Your task to perform on an android device: change alarm snooze length Image 0: 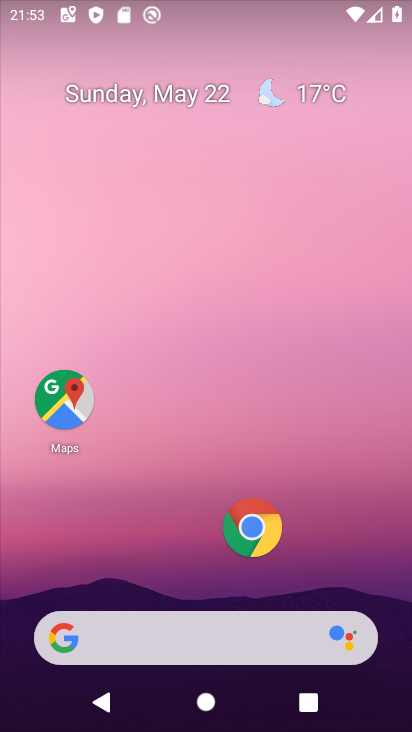
Step 0: drag from (350, 537) to (157, 46)
Your task to perform on an android device: change alarm snooze length Image 1: 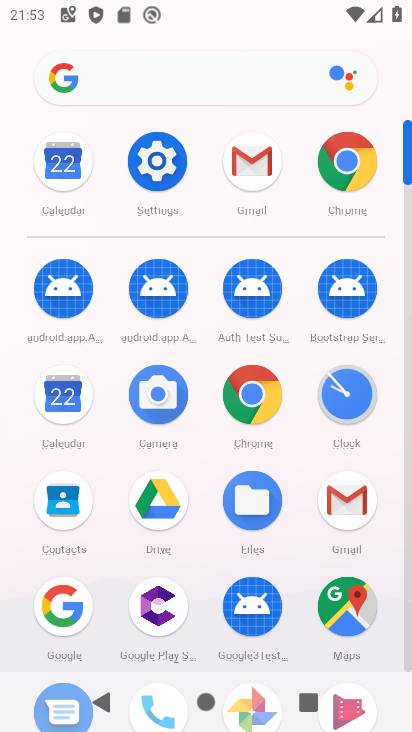
Step 1: click (347, 386)
Your task to perform on an android device: change alarm snooze length Image 2: 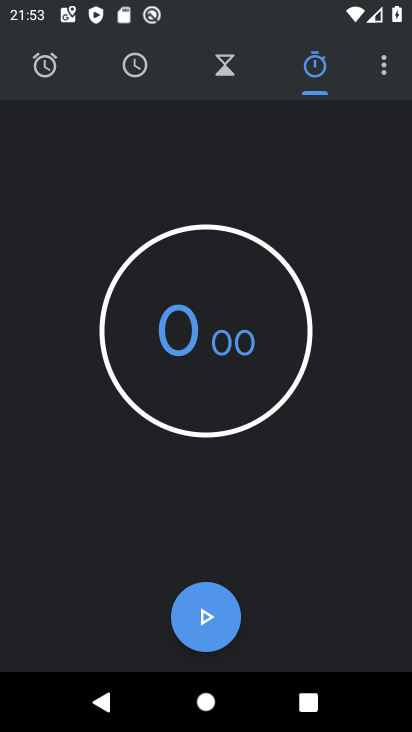
Step 2: click (379, 63)
Your task to perform on an android device: change alarm snooze length Image 3: 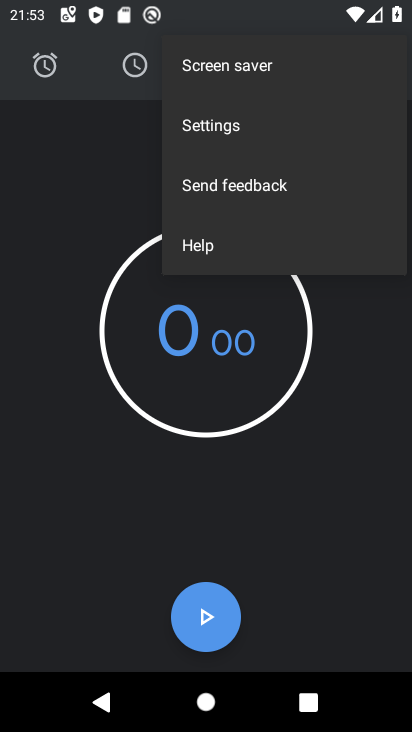
Step 3: click (237, 122)
Your task to perform on an android device: change alarm snooze length Image 4: 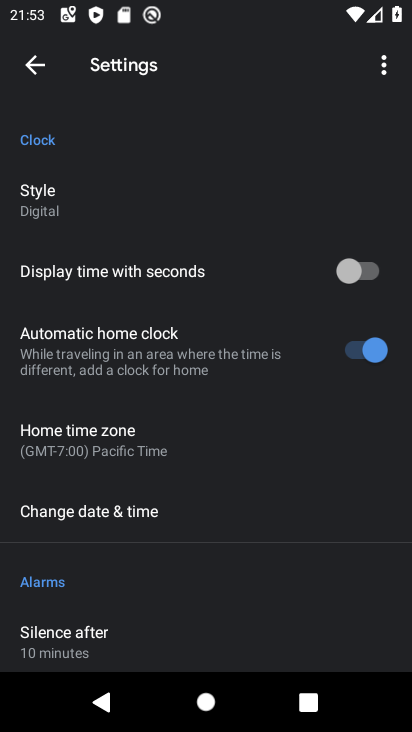
Step 4: drag from (271, 526) to (177, 210)
Your task to perform on an android device: change alarm snooze length Image 5: 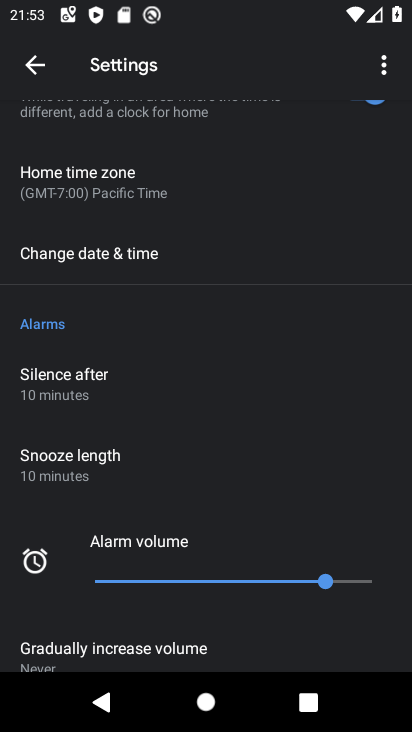
Step 5: click (81, 460)
Your task to perform on an android device: change alarm snooze length Image 6: 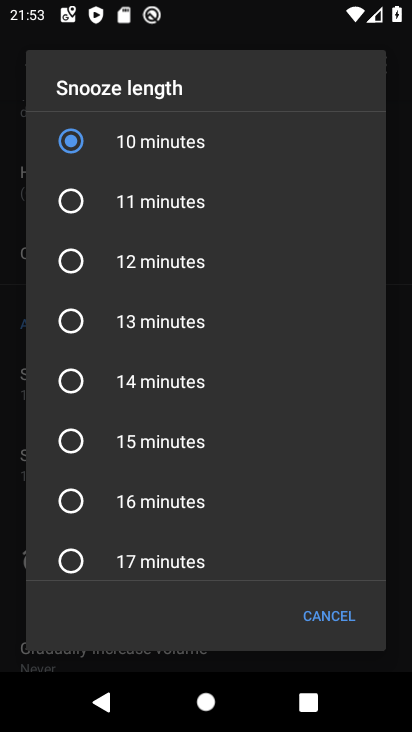
Step 6: click (73, 329)
Your task to perform on an android device: change alarm snooze length Image 7: 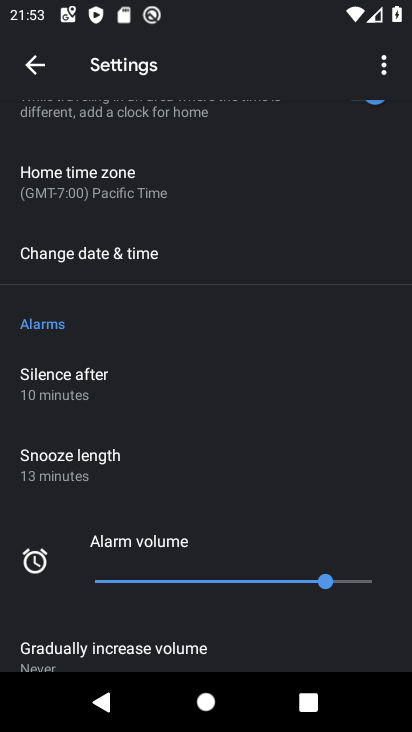
Step 7: task complete